Your task to perform on an android device: Go to display settings Image 0: 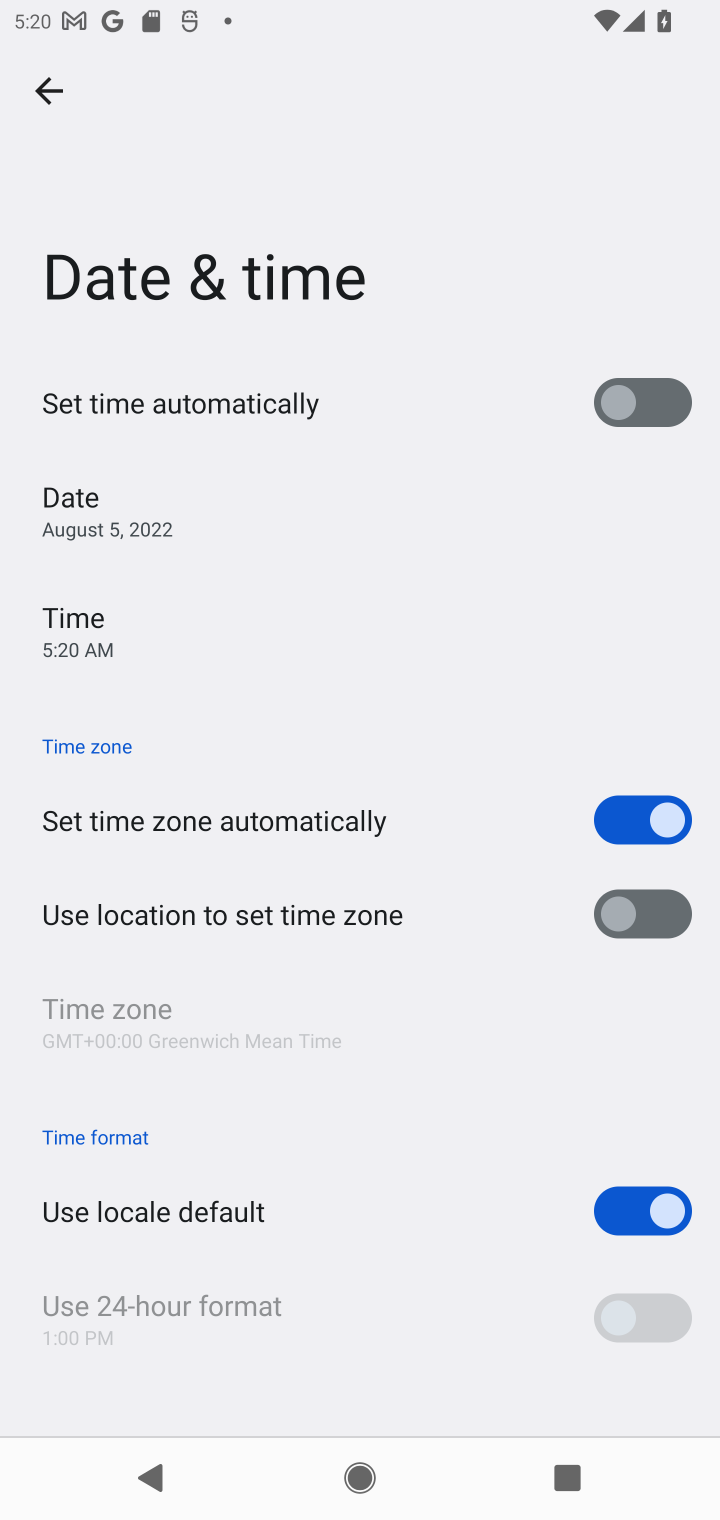
Step 0: task complete